Your task to perform on an android device: toggle airplane mode Image 0: 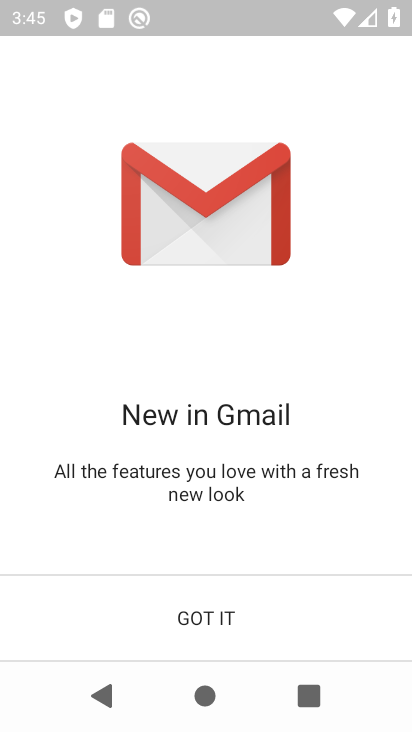
Step 0: press home button
Your task to perform on an android device: toggle airplane mode Image 1: 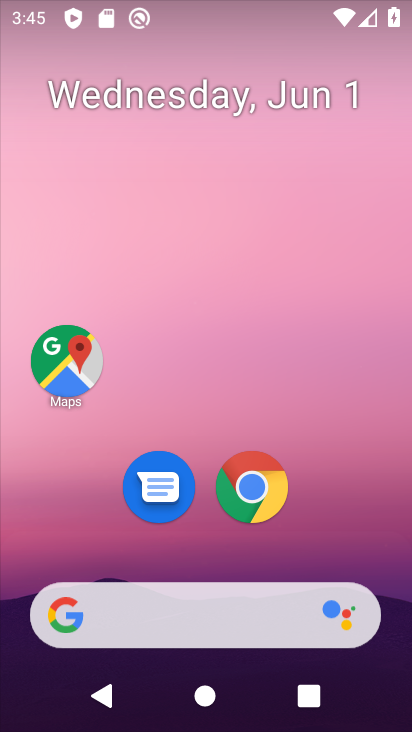
Step 1: drag from (195, 570) to (195, 262)
Your task to perform on an android device: toggle airplane mode Image 2: 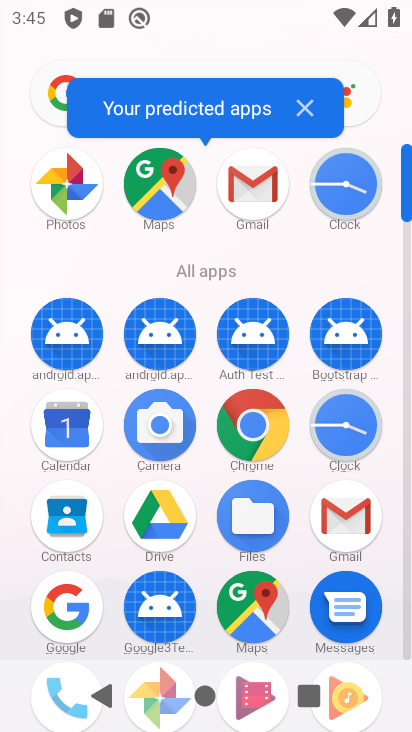
Step 2: drag from (192, 600) to (190, 217)
Your task to perform on an android device: toggle airplane mode Image 3: 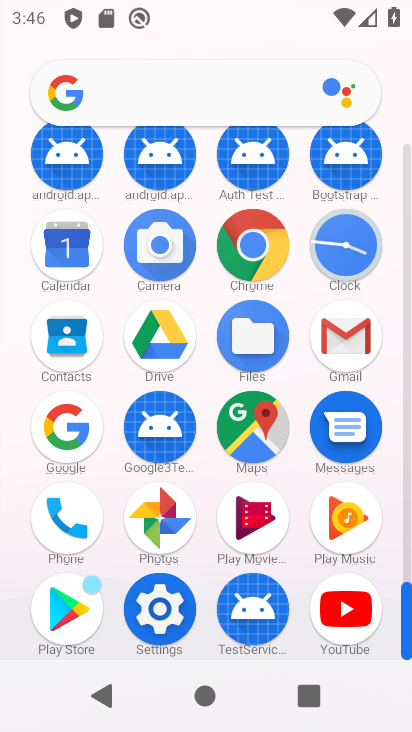
Step 3: click (161, 616)
Your task to perform on an android device: toggle airplane mode Image 4: 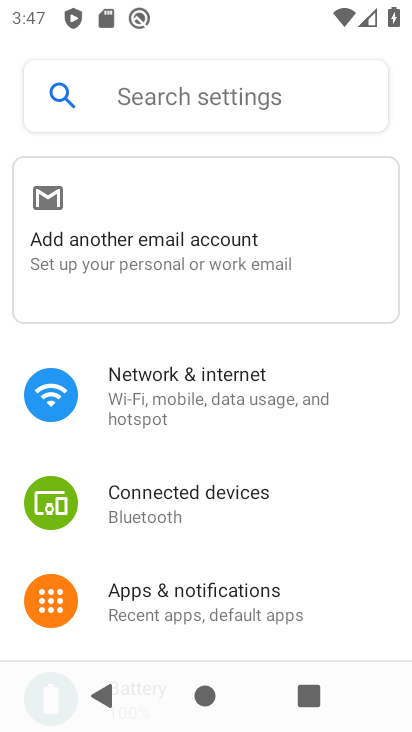
Step 4: click (182, 408)
Your task to perform on an android device: toggle airplane mode Image 5: 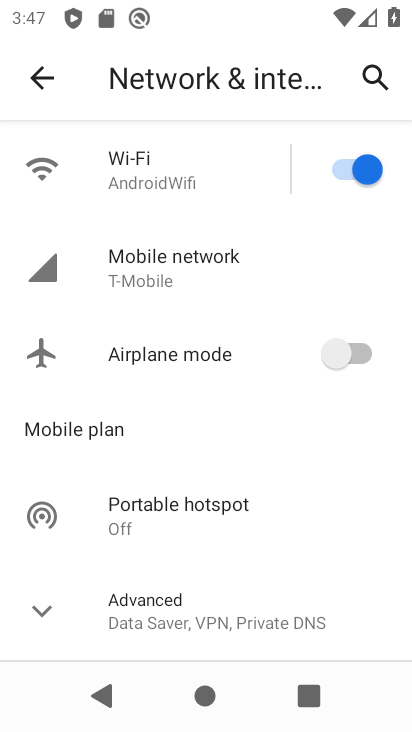
Step 5: click (362, 354)
Your task to perform on an android device: toggle airplane mode Image 6: 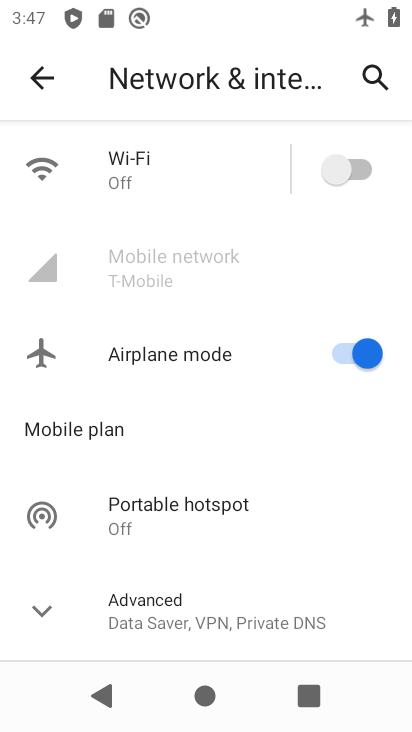
Step 6: task complete